Your task to perform on an android device: delete the emails in spam in the gmail app Image 0: 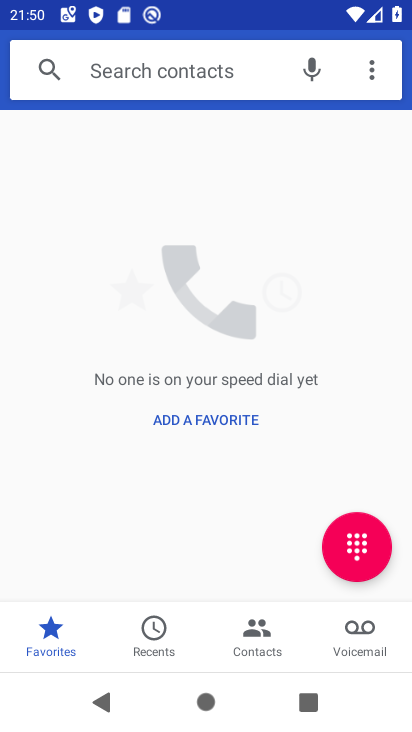
Step 0: press home button
Your task to perform on an android device: delete the emails in spam in the gmail app Image 1: 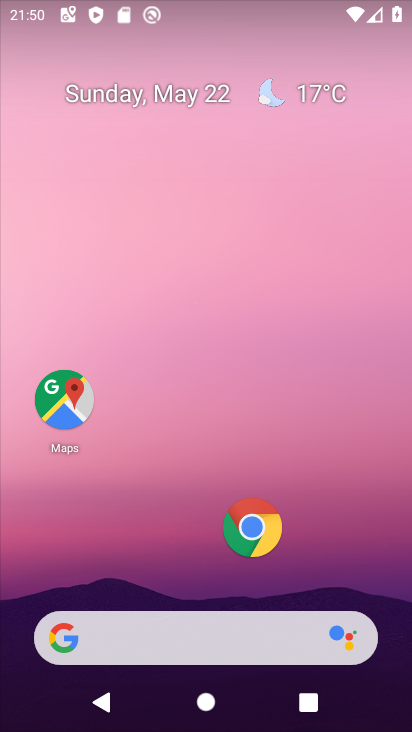
Step 1: drag from (166, 549) to (75, 10)
Your task to perform on an android device: delete the emails in spam in the gmail app Image 2: 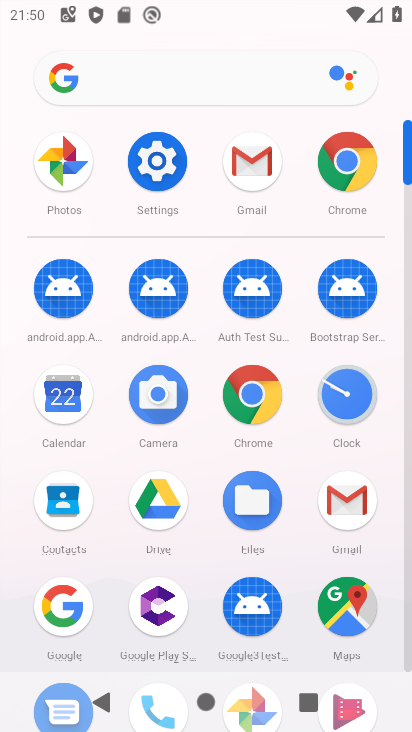
Step 2: click (249, 166)
Your task to perform on an android device: delete the emails in spam in the gmail app Image 3: 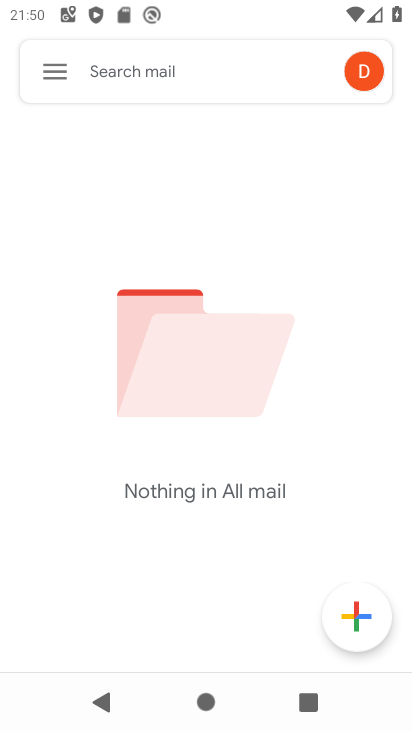
Step 3: click (52, 68)
Your task to perform on an android device: delete the emails in spam in the gmail app Image 4: 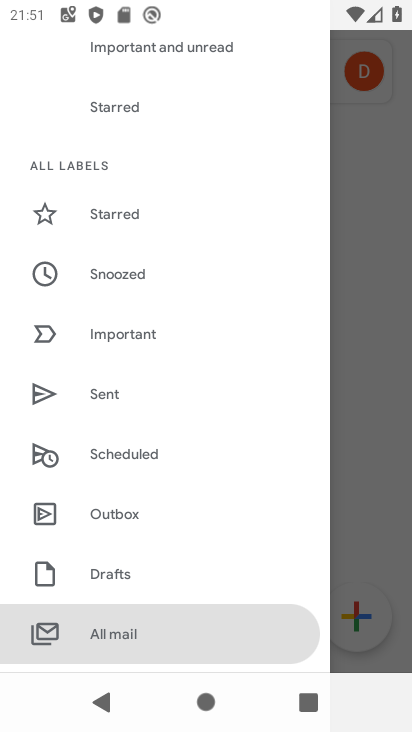
Step 4: drag from (234, 388) to (351, 725)
Your task to perform on an android device: delete the emails in spam in the gmail app Image 5: 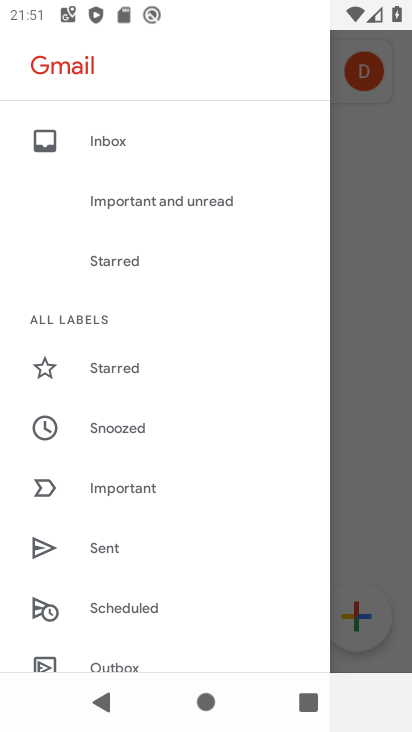
Step 5: drag from (179, 467) to (165, 185)
Your task to perform on an android device: delete the emails in spam in the gmail app Image 6: 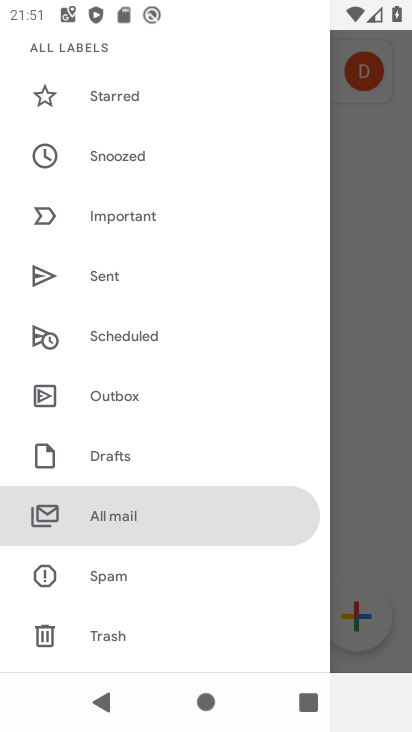
Step 6: click (104, 579)
Your task to perform on an android device: delete the emails in spam in the gmail app Image 7: 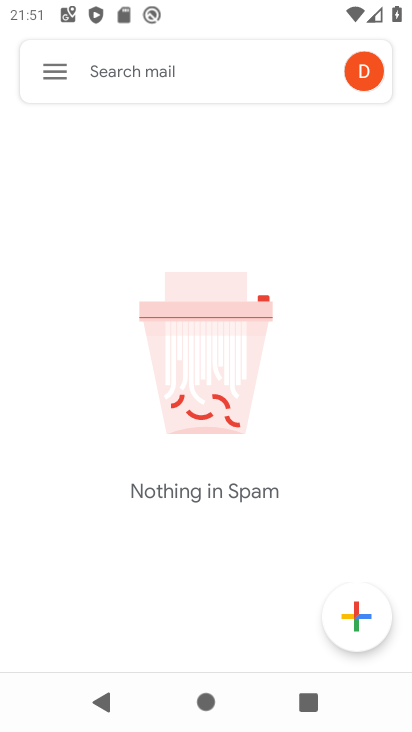
Step 7: task complete